Your task to perform on an android device: Open Google Image 0: 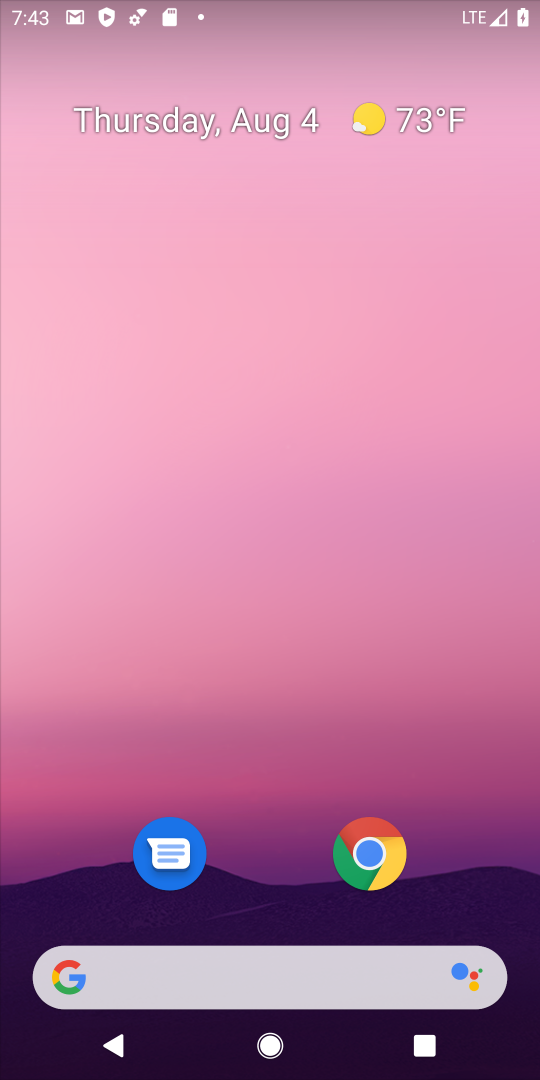
Step 0: drag from (266, 854) to (214, 407)
Your task to perform on an android device: Open Google Image 1: 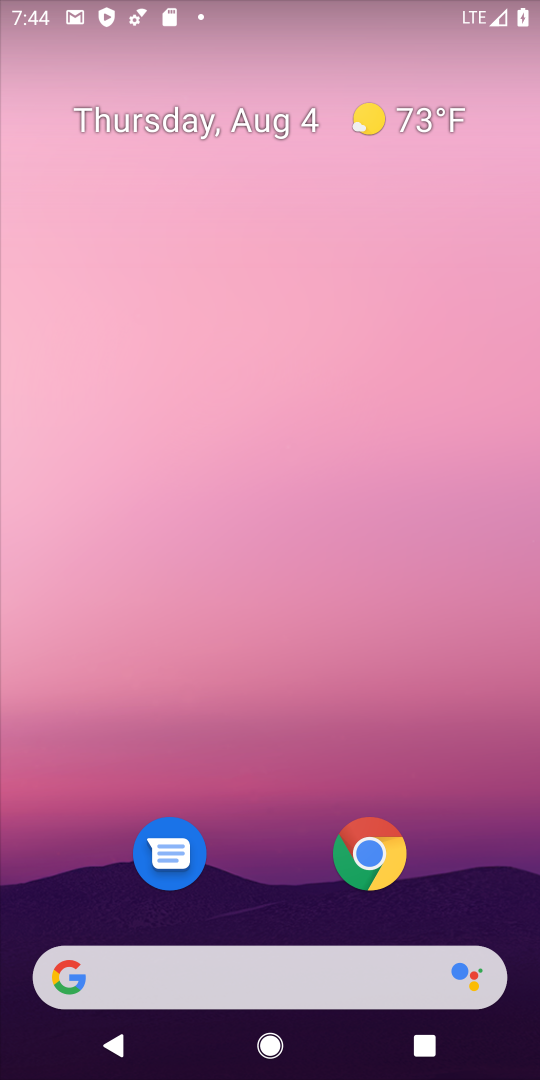
Step 1: drag from (256, 932) to (278, 360)
Your task to perform on an android device: Open Google Image 2: 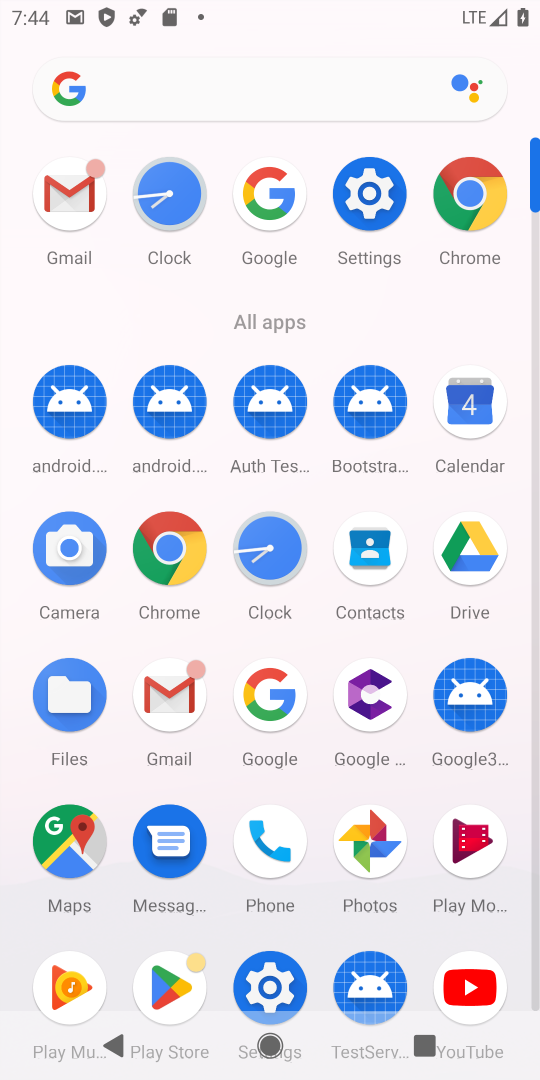
Step 2: click (270, 710)
Your task to perform on an android device: Open Google Image 3: 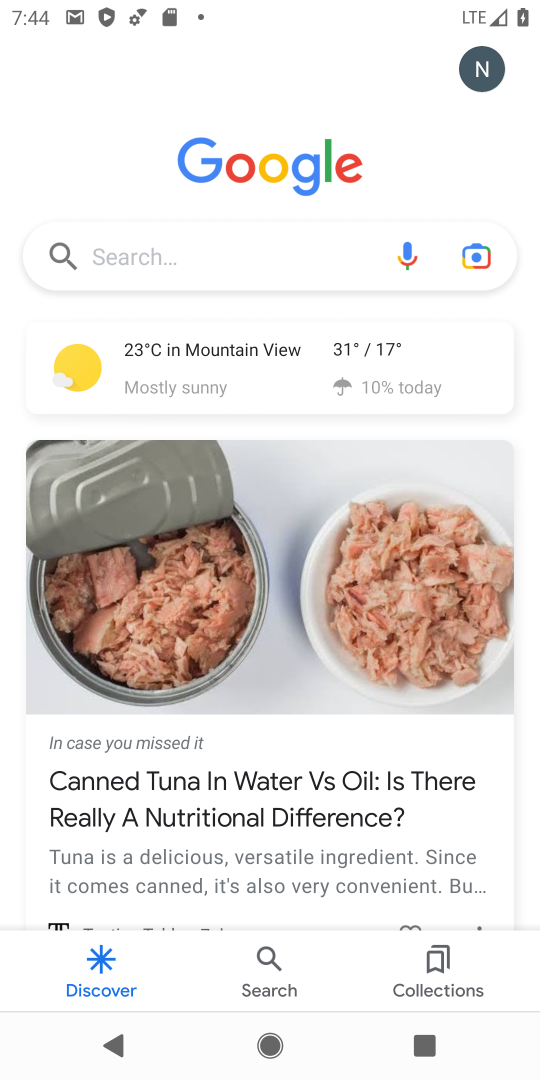
Step 3: task complete